Your task to perform on an android device: Go to accessibility settings Image 0: 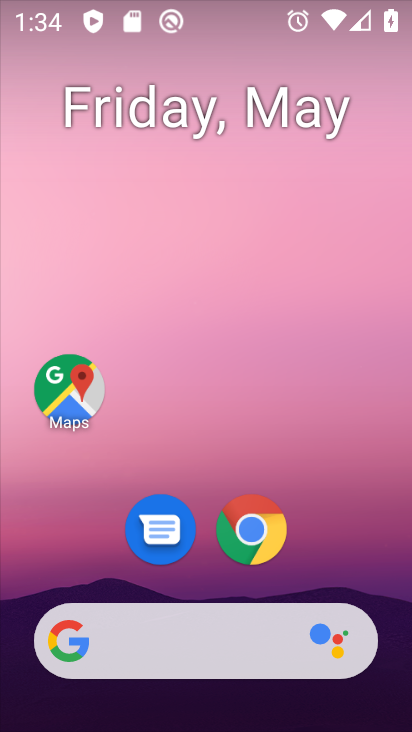
Step 0: drag from (388, 491) to (376, 409)
Your task to perform on an android device: Go to accessibility settings Image 1: 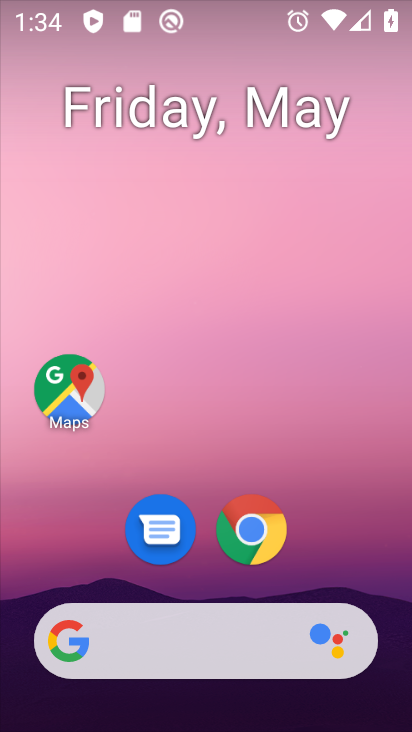
Step 1: drag from (410, 644) to (411, 343)
Your task to perform on an android device: Go to accessibility settings Image 2: 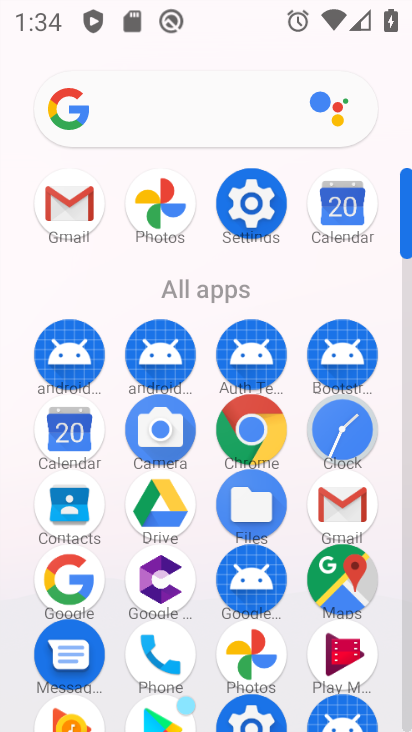
Step 2: click (248, 221)
Your task to perform on an android device: Go to accessibility settings Image 3: 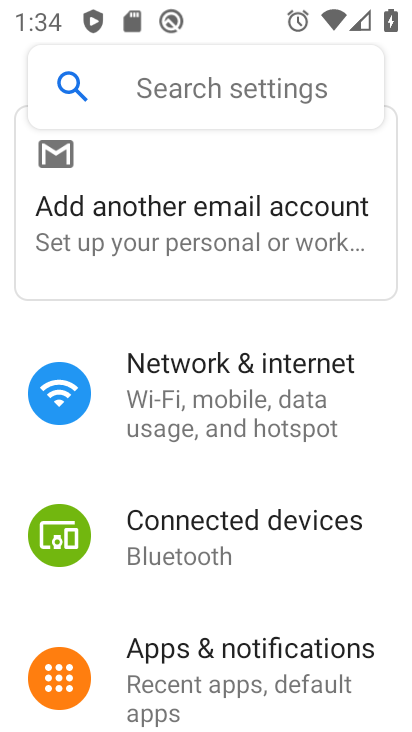
Step 3: drag from (397, 709) to (366, 262)
Your task to perform on an android device: Go to accessibility settings Image 4: 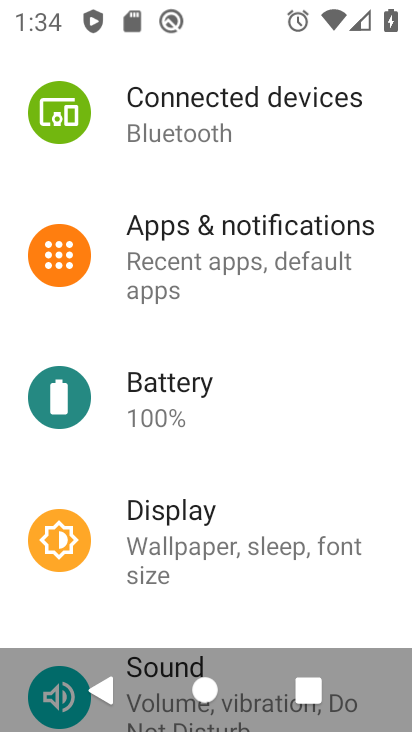
Step 4: drag from (377, 622) to (323, 288)
Your task to perform on an android device: Go to accessibility settings Image 5: 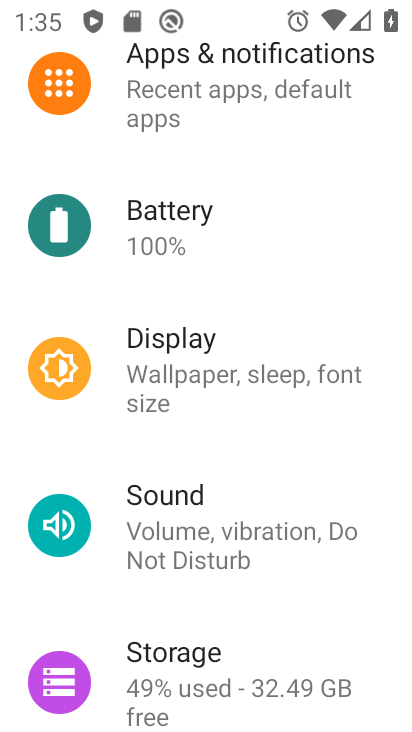
Step 5: drag from (390, 700) to (377, 236)
Your task to perform on an android device: Go to accessibility settings Image 6: 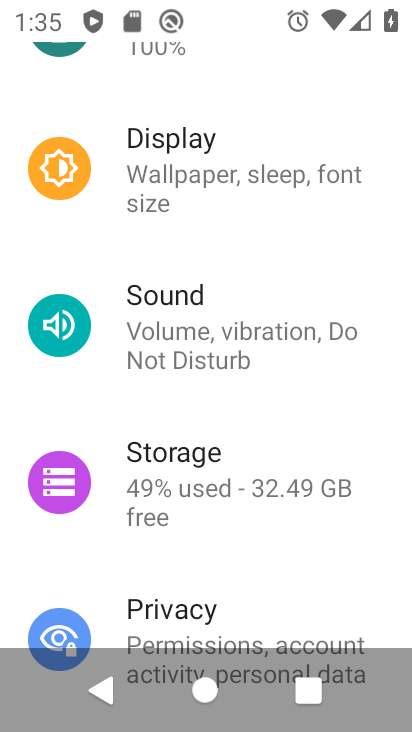
Step 6: drag from (391, 574) to (370, 270)
Your task to perform on an android device: Go to accessibility settings Image 7: 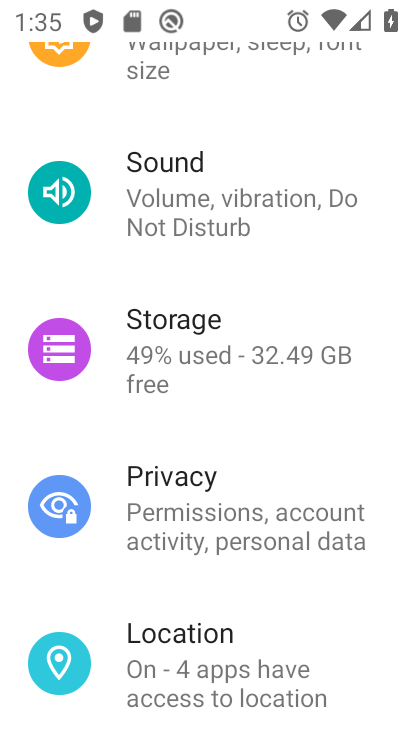
Step 7: drag from (371, 626) to (344, 347)
Your task to perform on an android device: Go to accessibility settings Image 8: 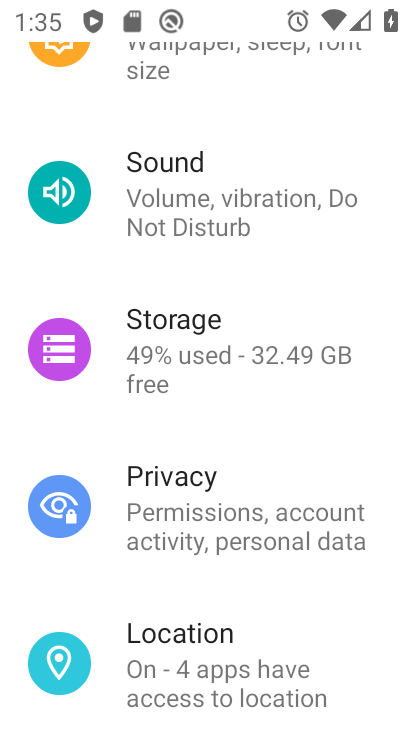
Step 8: drag from (307, 620) to (278, 257)
Your task to perform on an android device: Go to accessibility settings Image 9: 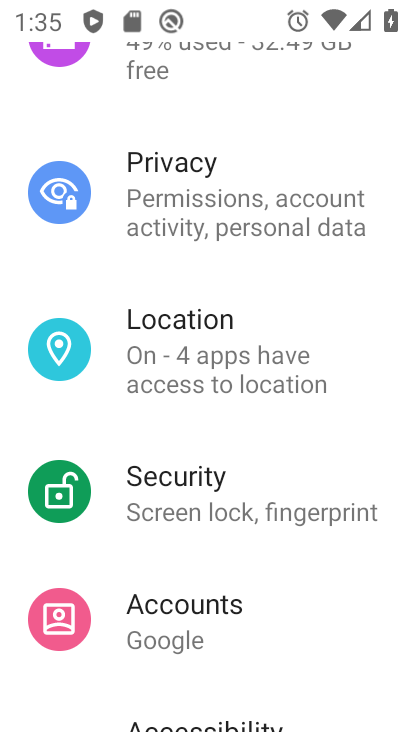
Step 9: drag from (333, 687) to (333, 358)
Your task to perform on an android device: Go to accessibility settings Image 10: 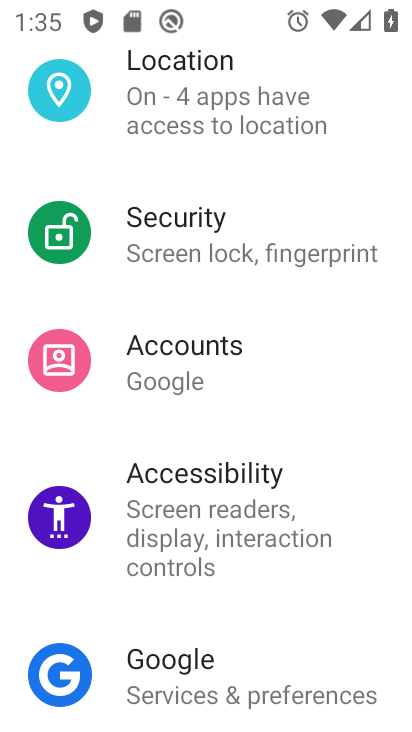
Step 10: click (212, 498)
Your task to perform on an android device: Go to accessibility settings Image 11: 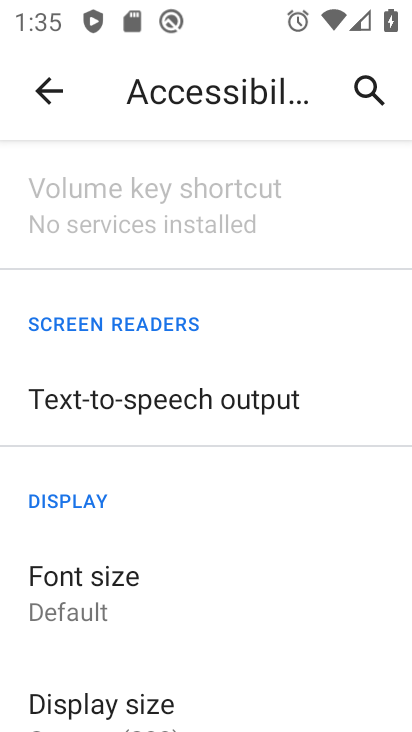
Step 11: task complete